Your task to perform on an android device: turn off improve location accuracy Image 0: 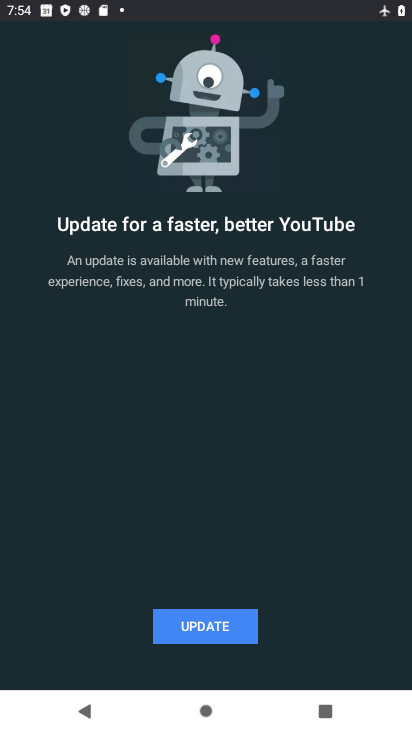
Step 0: press home button
Your task to perform on an android device: turn off improve location accuracy Image 1: 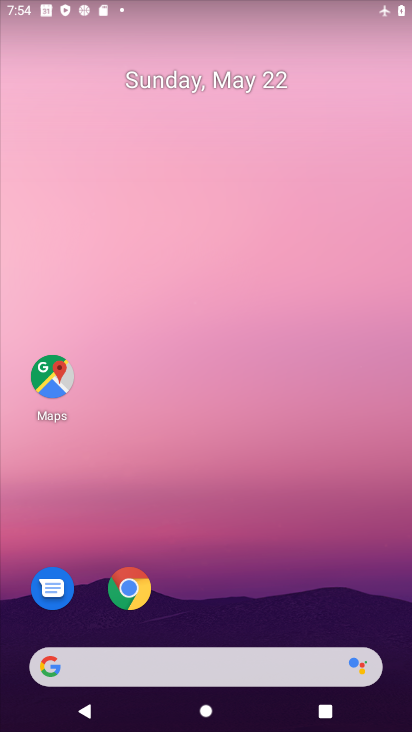
Step 1: drag from (252, 557) to (215, 185)
Your task to perform on an android device: turn off improve location accuracy Image 2: 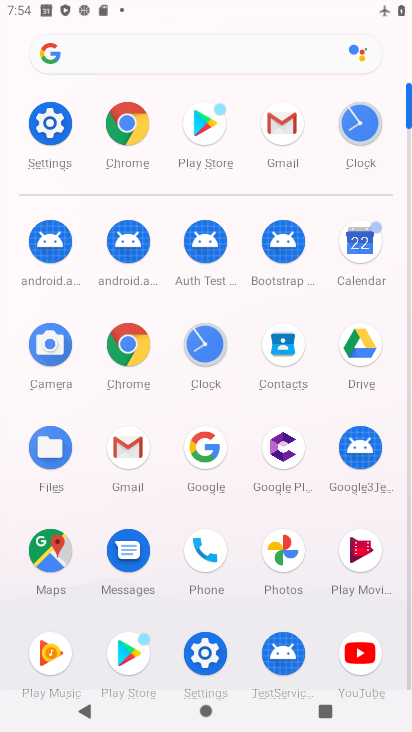
Step 2: click (44, 123)
Your task to perform on an android device: turn off improve location accuracy Image 3: 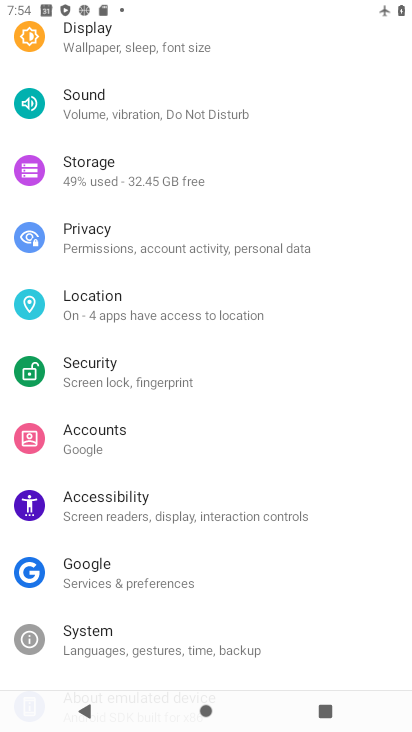
Step 3: click (100, 286)
Your task to perform on an android device: turn off improve location accuracy Image 4: 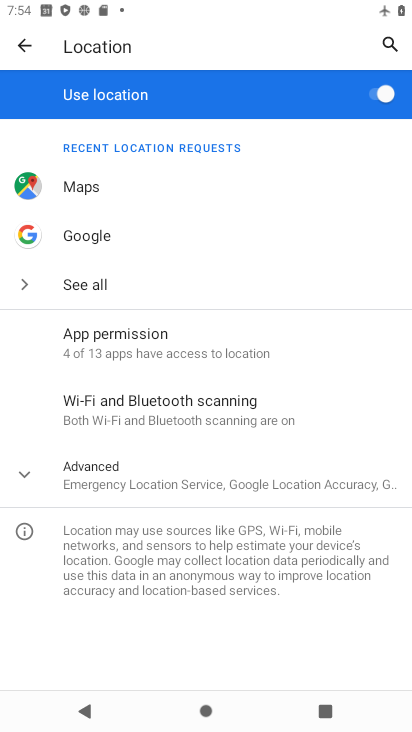
Step 4: click (30, 472)
Your task to perform on an android device: turn off improve location accuracy Image 5: 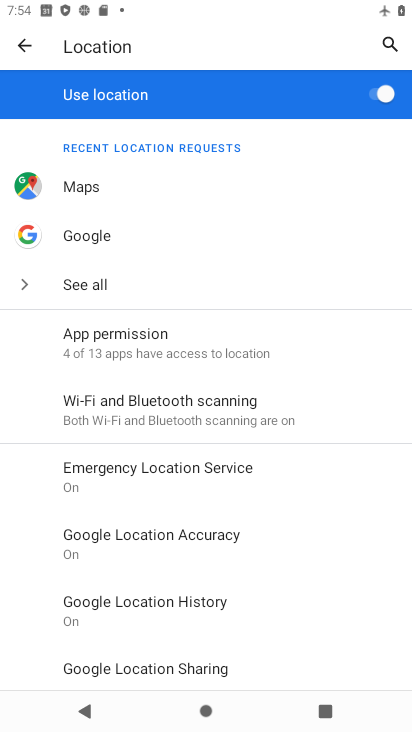
Step 5: click (175, 531)
Your task to perform on an android device: turn off improve location accuracy Image 6: 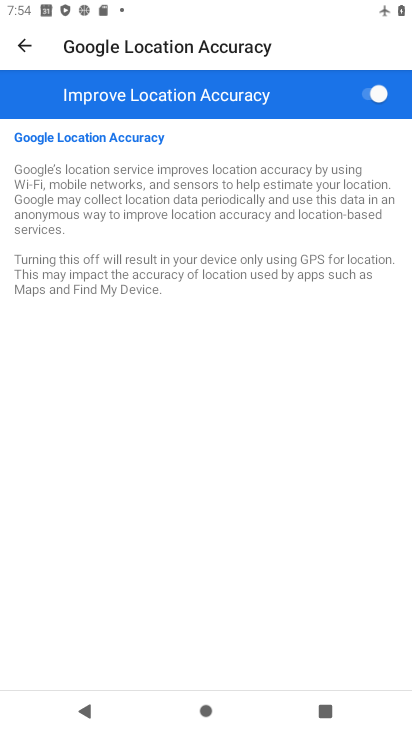
Step 6: click (370, 97)
Your task to perform on an android device: turn off improve location accuracy Image 7: 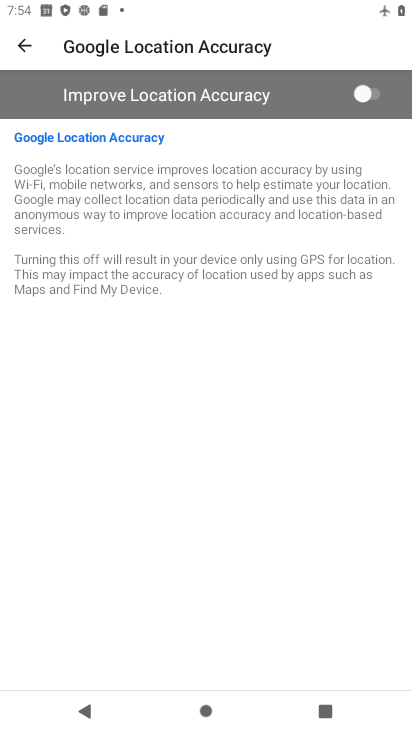
Step 7: task complete